Your task to perform on an android device: Open notification settings Image 0: 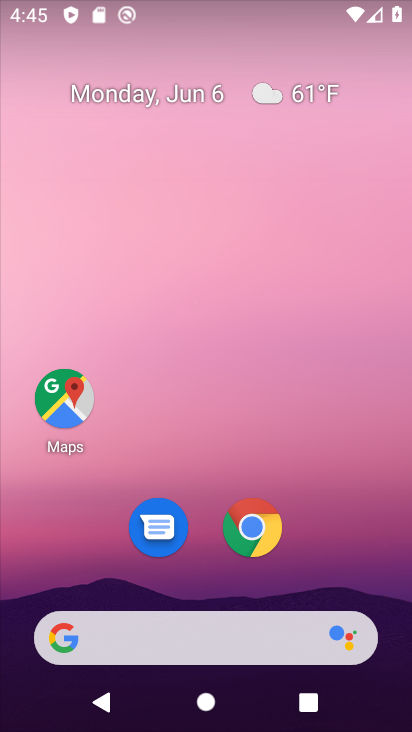
Step 0: drag from (383, 549) to (348, 203)
Your task to perform on an android device: Open notification settings Image 1: 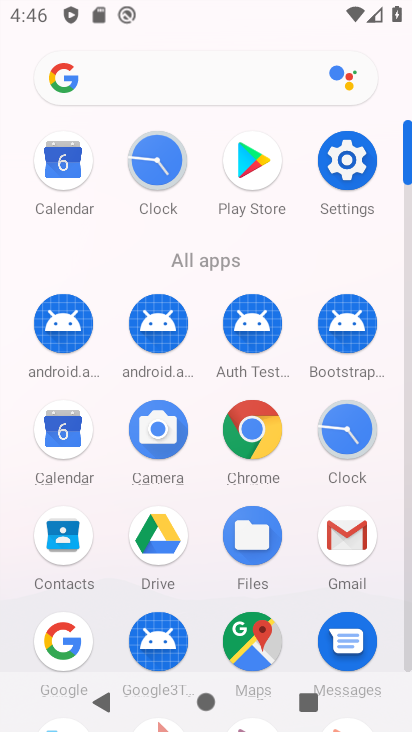
Step 1: click (343, 149)
Your task to perform on an android device: Open notification settings Image 2: 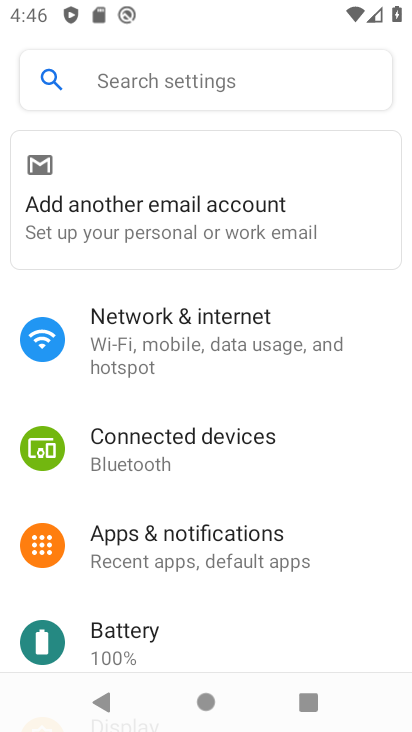
Step 2: click (191, 529)
Your task to perform on an android device: Open notification settings Image 3: 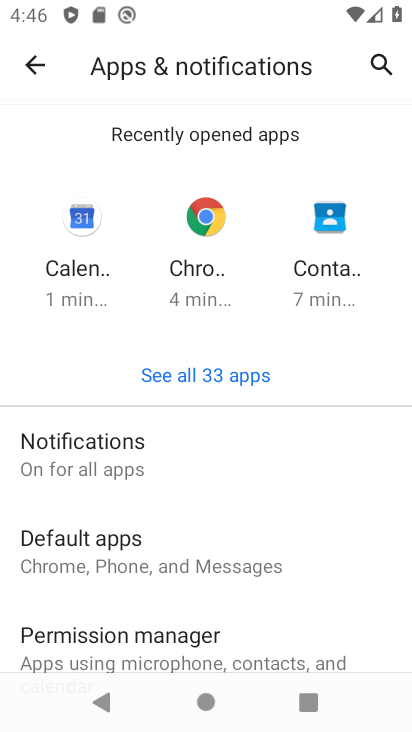
Step 3: click (77, 446)
Your task to perform on an android device: Open notification settings Image 4: 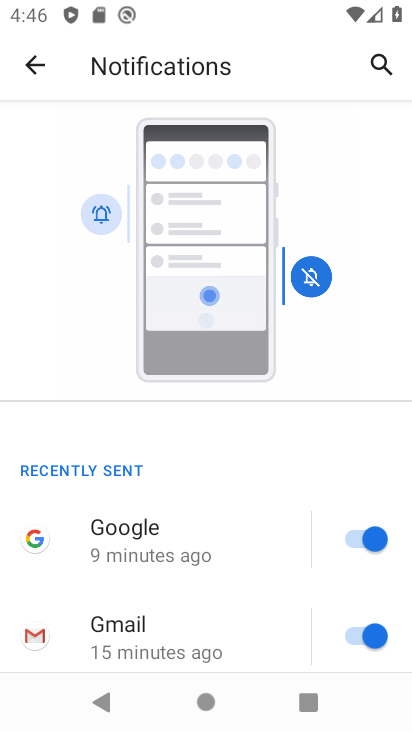
Step 4: drag from (255, 628) to (205, 202)
Your task to perform on an android device: Open notification settings Image 5: 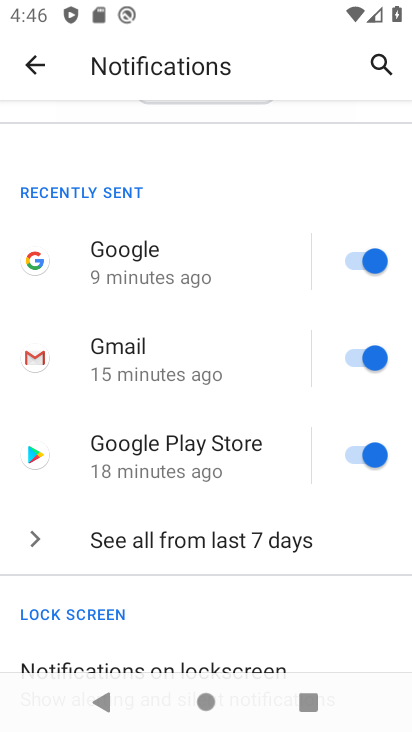
Step 5: click (276, 264)
Your task to perform on an android device: Open notification settings Image 6: 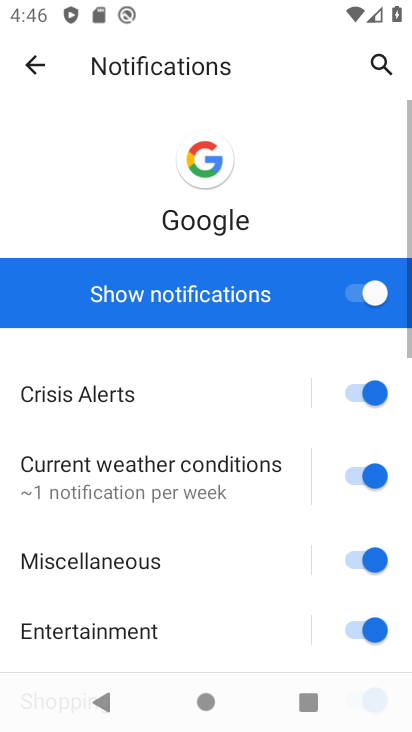
Step 6: drag from (286, 614) to (259, 304)
Your task to perform on an android device: Open notification settings Image 7: 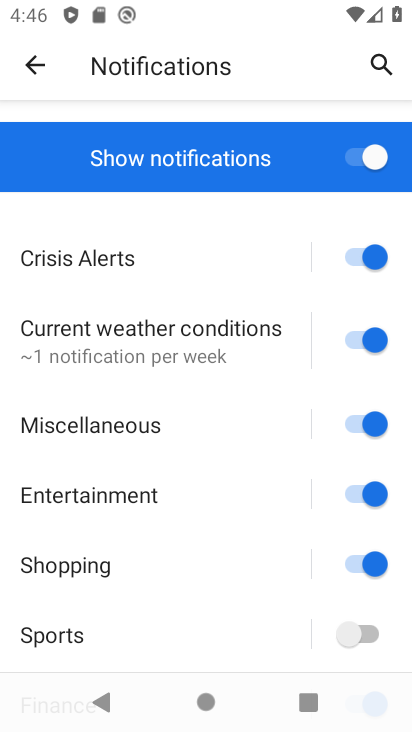
Step 7: click (38, 60)
Your task to perform on an android device: Open notification settings Image 8: 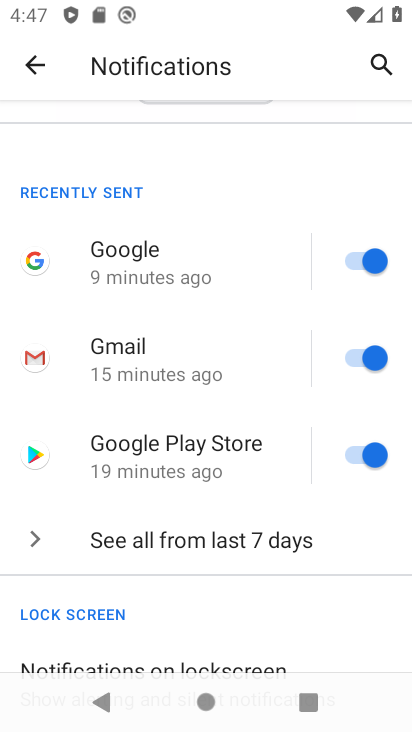
Step 8: drag from (218, 531) to (219, 348)
Your task to perform on an android device: Open notification settings Image 9: 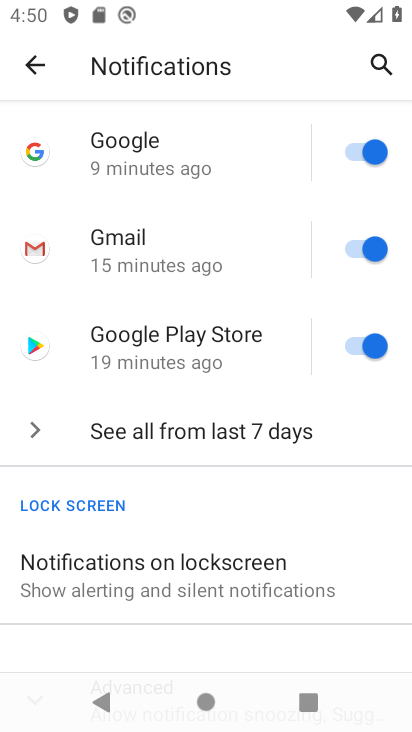
Step 9: drag from (243, 499) to (229, 238)
Your task to perform on an android device: Open notification settings Image 10: 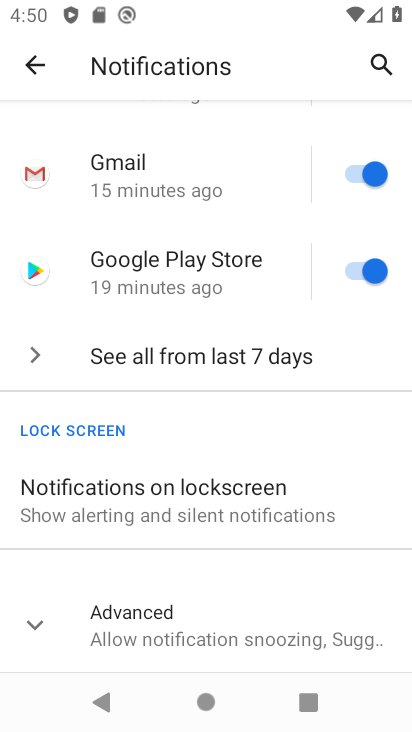
Step 10: click (52, 611)
Your task to perform on an android device: Open notification settings Image 11: 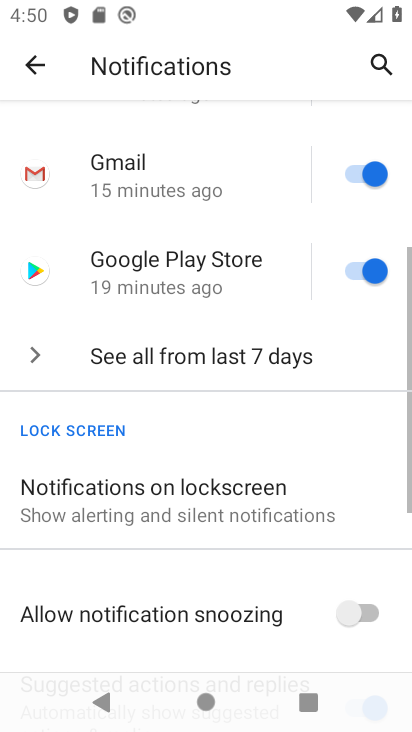
Step 11: task complete